Your task to perform on an android device: What's the weather going to be tomorrow? Image 0: 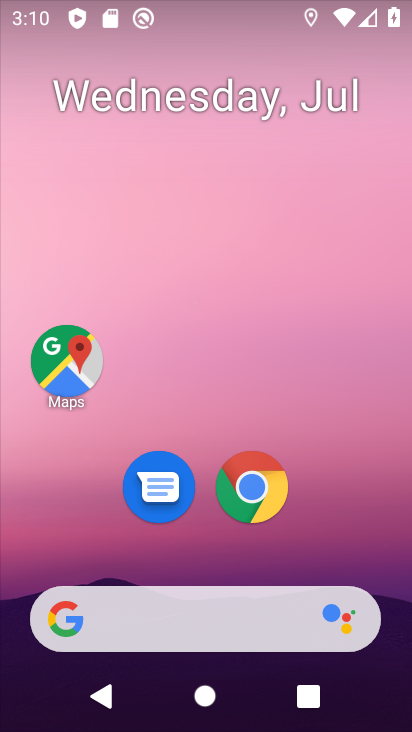
Step 0: click (163, 635)
Your task to perform on an android device: What's the weather going to be tomorrow? Image 1: 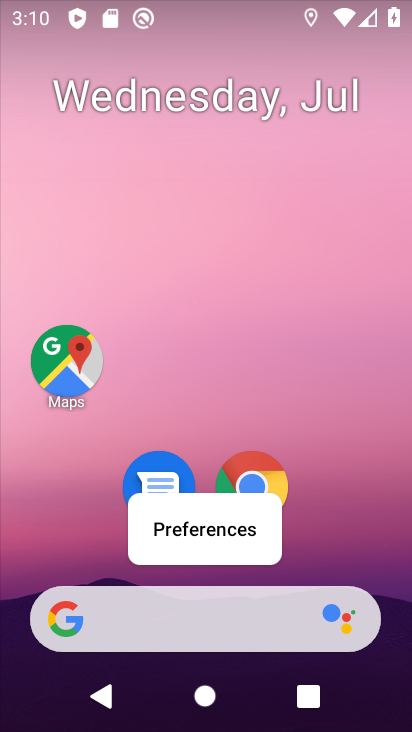
Step 1: click (178, 612)
Your task to perform on an android device: What's the weather going to be tomorrow? Image 2: 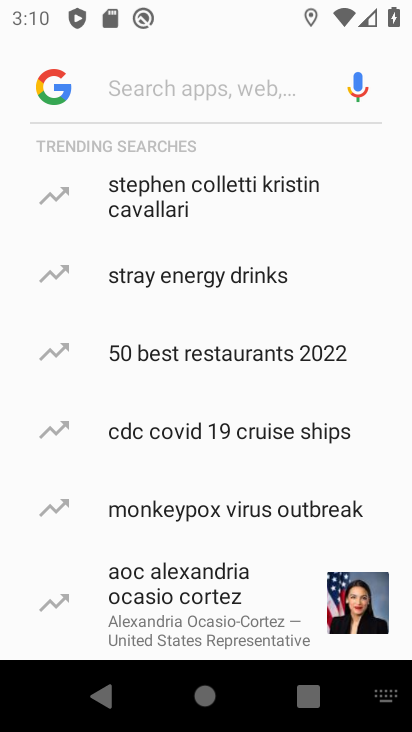
Step 2: click (154, 82)
Your task to perform on an android device: What's the weather going to be tomorrow? Image 3: 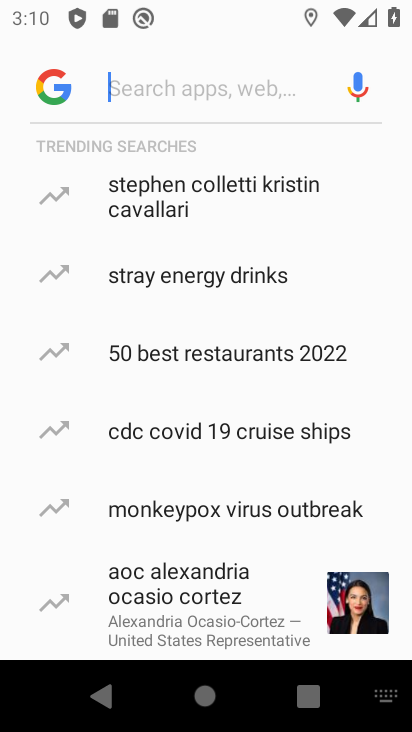
Step 3: type "weather"
Your task to perform on an android device: What's the weather going to be tomorrow? Image 4: 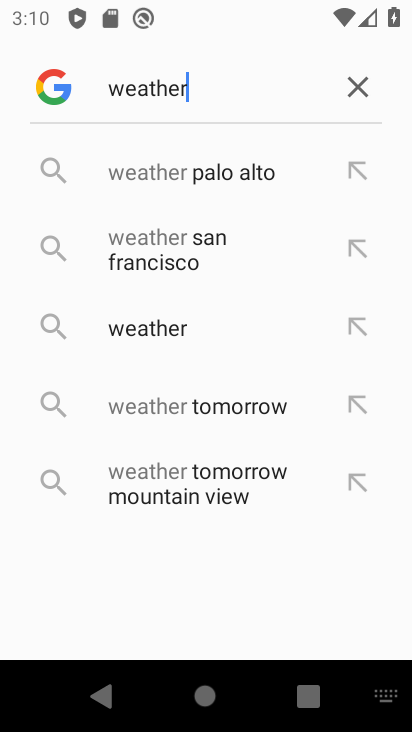
Step 4: click (173, 326)
Your task to perform on an android device: What's the weather going to be tomorrow? Image 5: 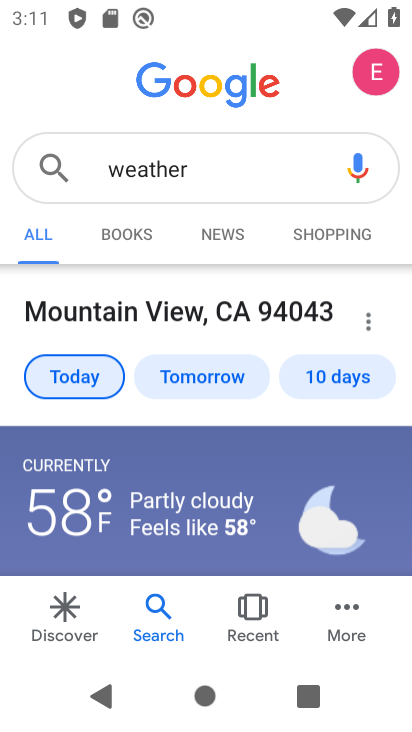
Step 5: click (194, 370)
Your task to perform on an android device: What's the weather going to be tomorrow? Image 6: 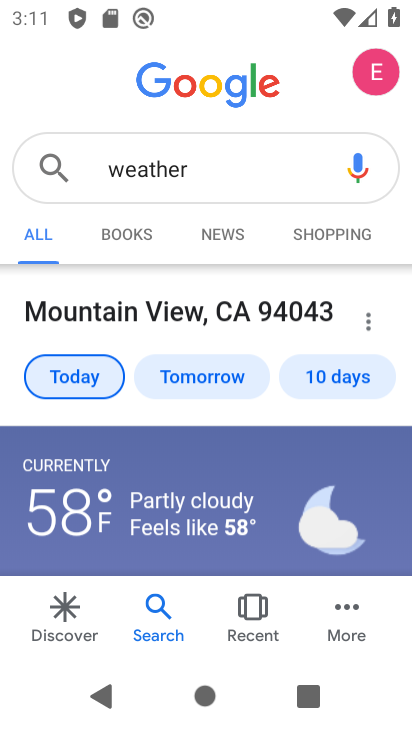
Step 6: click (214, 382)
Your task to perform on an android device: What's the weather going to be tomorrow? Image 7: 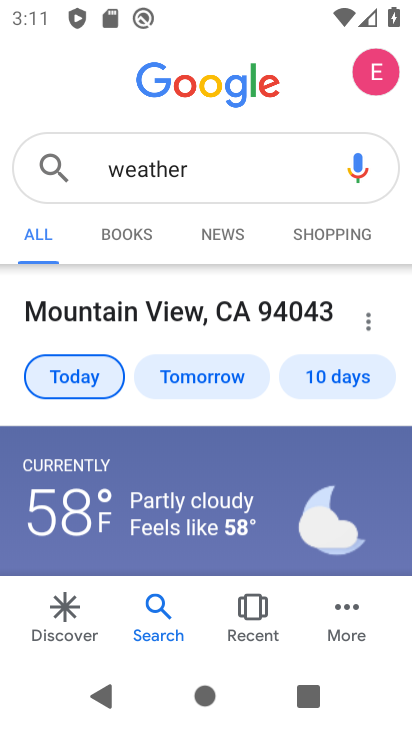
Step 7: click (215, 385)
Your task to perform on an android device: What's the weather going to be tomorrow? Image 8: 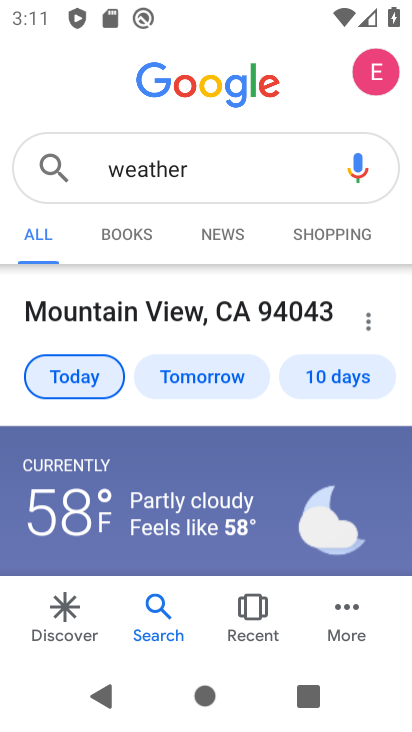
Step 8: task complete